Your task to perform on an android device: Empty the shopping cart on costco.com. Image 0: 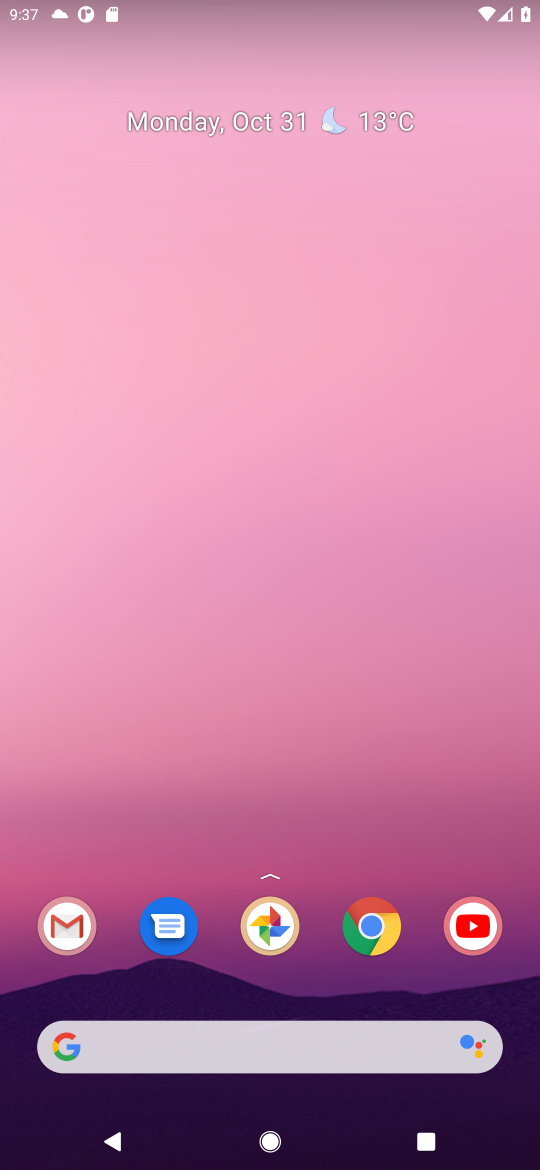
Step 0: click (376, 937)
Your task to perform on an android device: Empty the shopping cart on costco.com. Image 1: 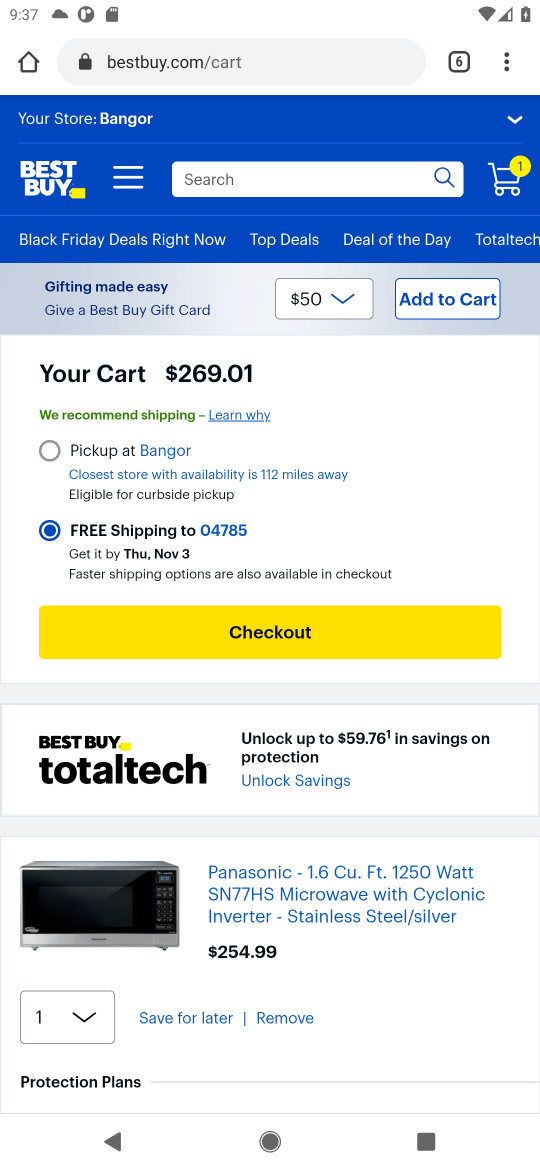
Step 1: click (466, 62)
Your task to perform on an android device: Empty the shopping cart on costco.com. Image 2: 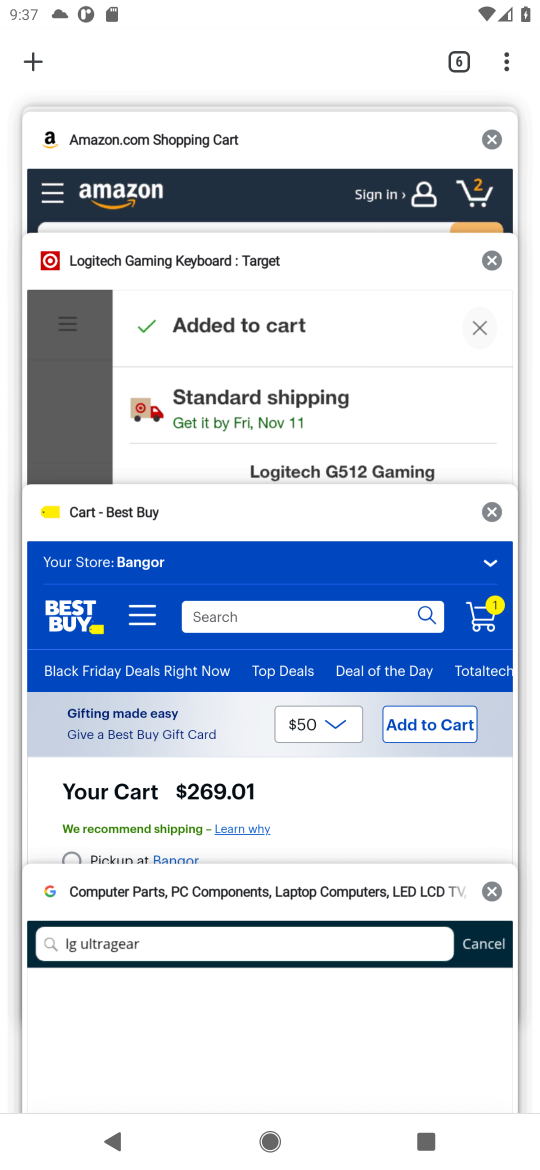
Step 2: drag from (299, 219) to (239, 527)
Your task to perform on an android device: Empty the shopping cart on costco.com. Image 3: 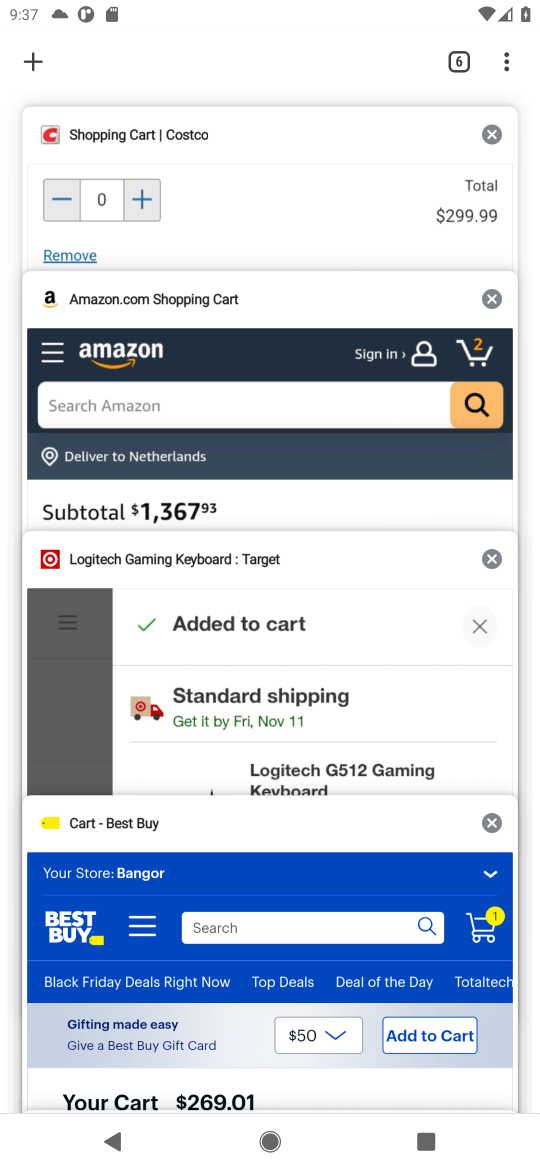
Step 3: click (308, 199)
Your task to perform on an android device: Empty the shopping cart on costco.com. Image 4: 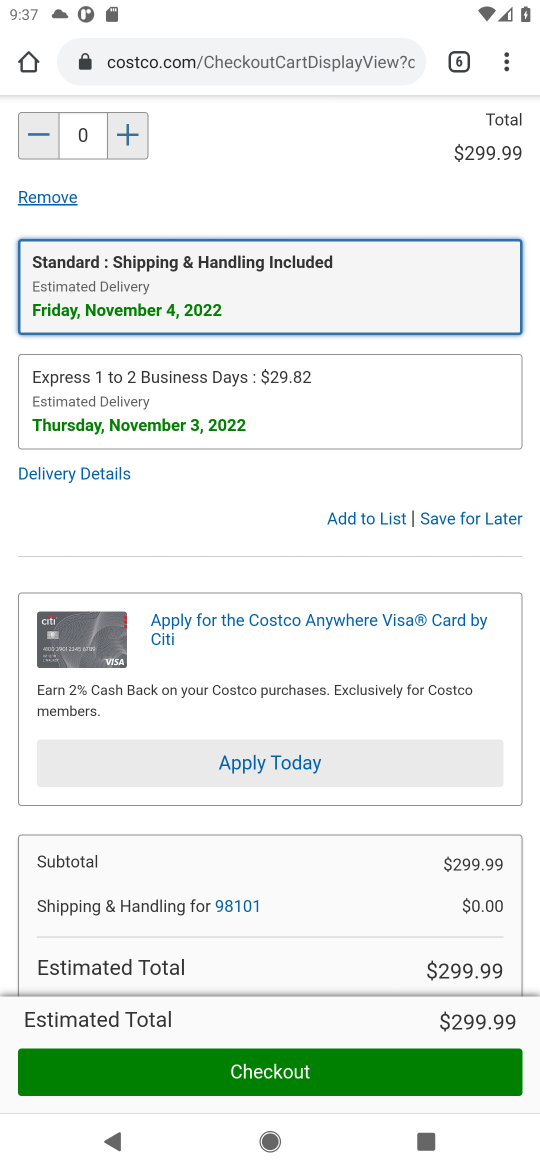
Step 4: click (59, 199)
Your task to perform on an android device: Empty the shopping cart on costco.com. Image 5: 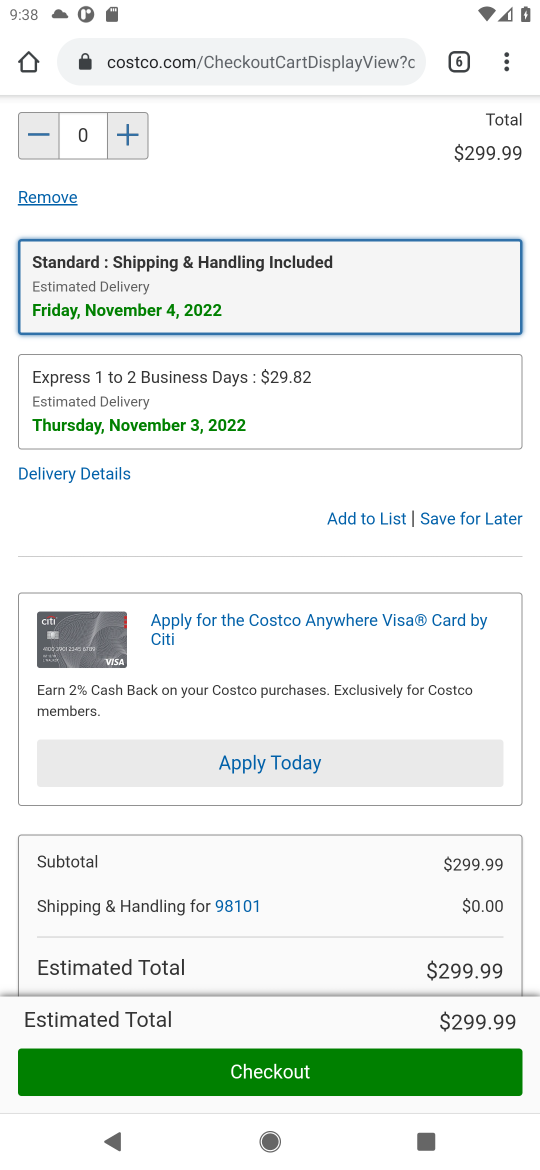
Step 5: click (59, 199)
Your task to perform on an android device: Empty the shopping cart on costco.com. Image 6: 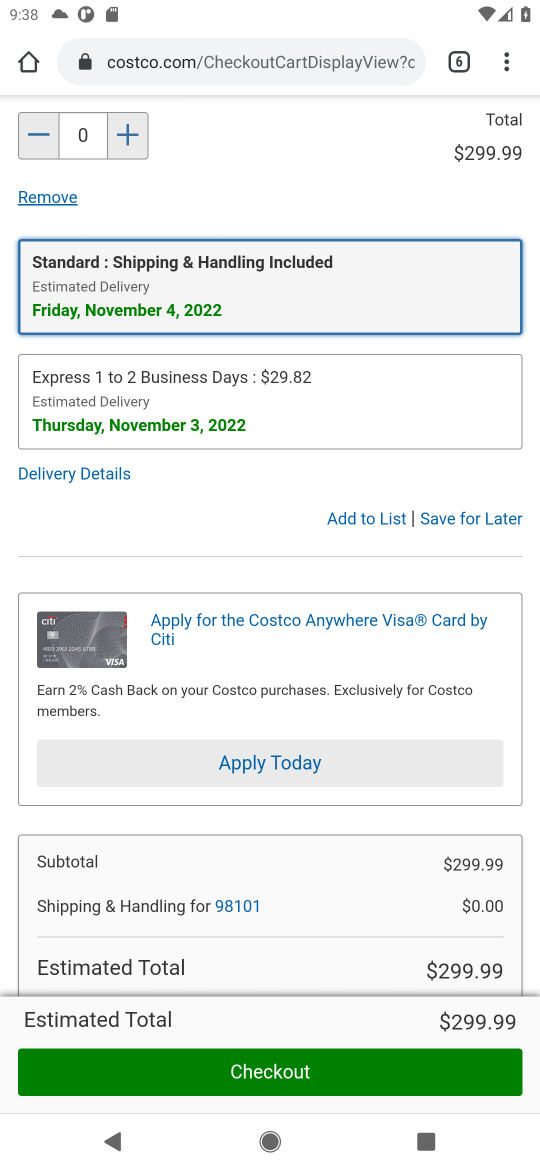
Step 6: task complete